Your task to perform on an android device: Open the calendar and show me this week's events? Image 0: 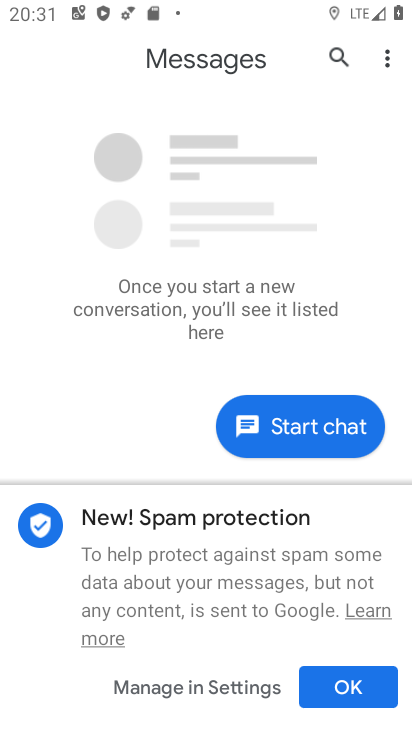
Step 0: press back button
Your task to perform on an android device: Open the calendar and show me this week's events? Image 1: 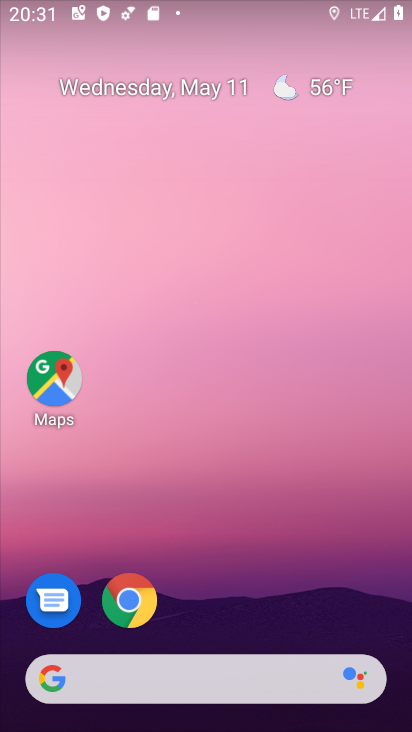
Step 1: drag from (245, 570) to (180, 58)
Your task to perform on an android device: Open the calendar and show me this week's events? Image 2: 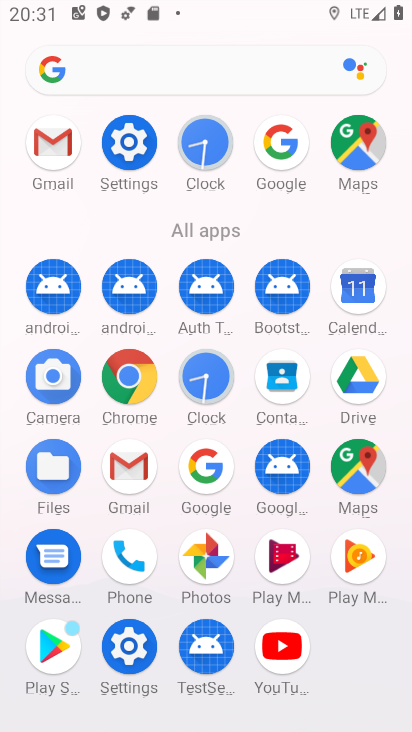
Step 2: click (356, 288)
Your task to perform on an android device: Open the calendar and show me this week's events? Image 3: 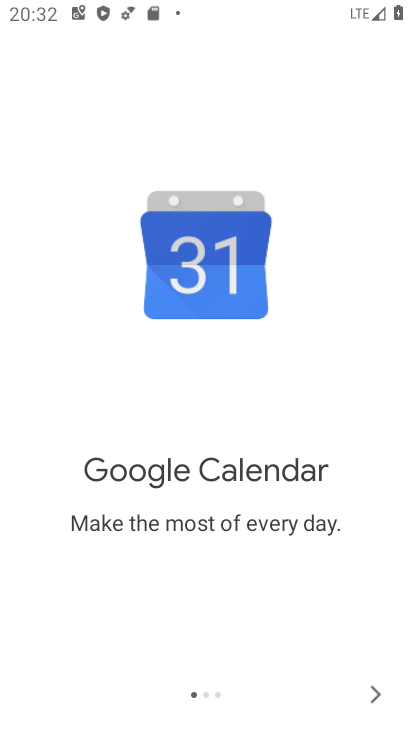
Step 3: click (377, 689)
Your task to perform on an android device: Open the calendar and show me this week's events? Image 4: 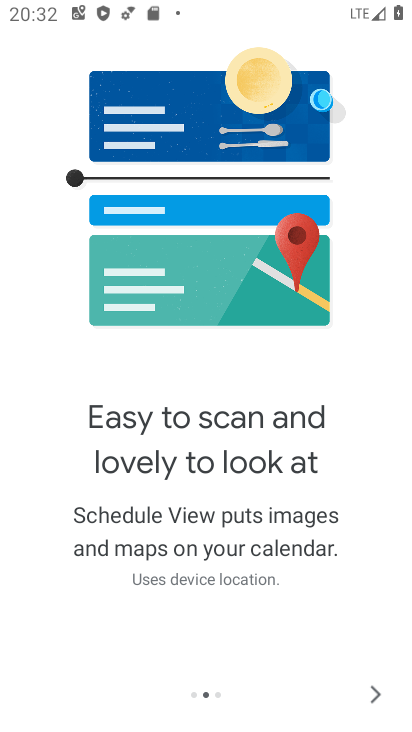
Step 4: click (377, 689)
Your task to perform on an android device: Open the calendar and show me this week's events? Image 5: 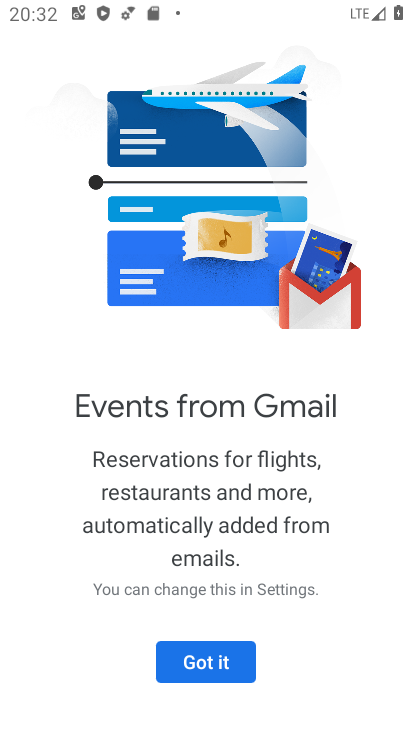
Step 5: click (210, 656)
Your task to perform on an android device: Open the calendar and show me this week's events? Image 6: 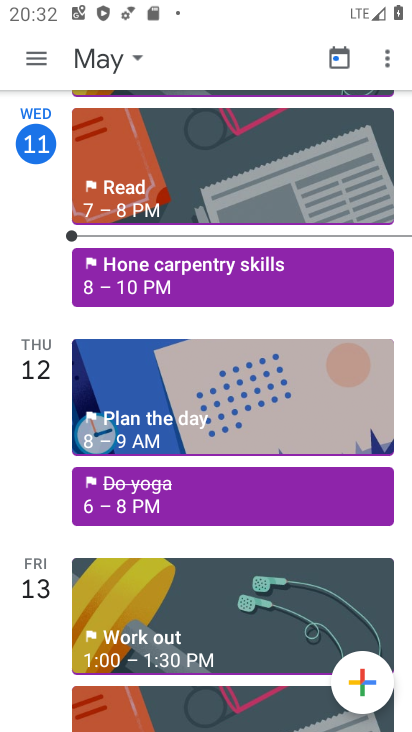
Step 6: click (133, 57)
Your task to perform on an android device: Open the calendar and show me this week's events? Image 7: 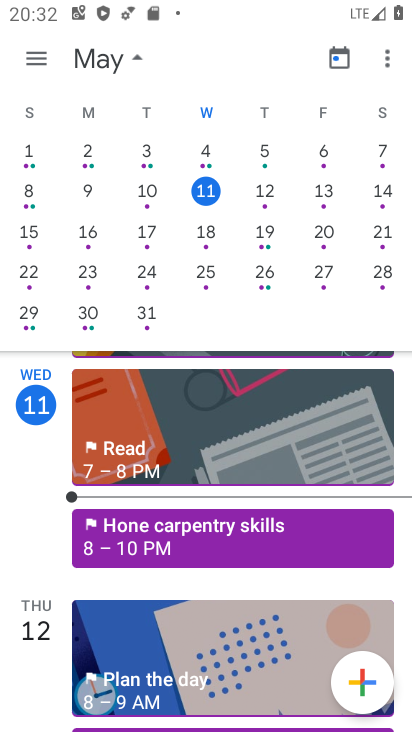
Step 7: task complete